Your task to perform on an android device: open the mobile data screen to see how much data has been used Image 0: 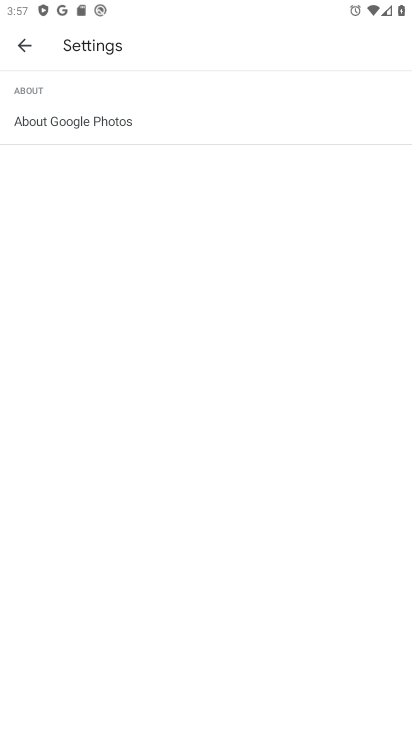
Step 0: press home button
Your task to perform on an android device: open the mobile data screen to see how much data has been used Image 1: 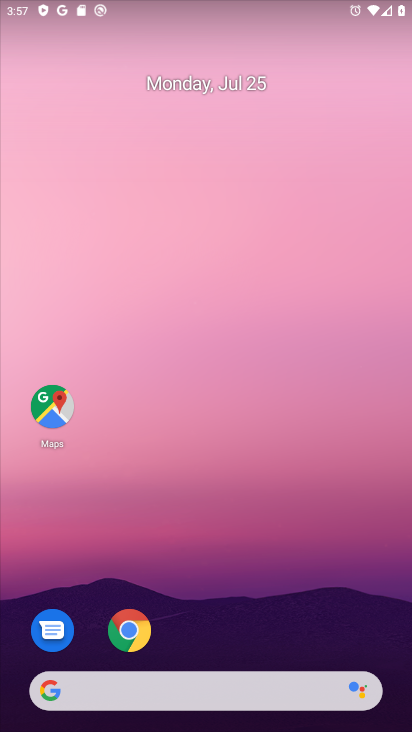
Step 1: drag from (176, 690) to (242, 216)
Your task to perform on an android device: open the mobile data screen to see how much data has been used Image 2: 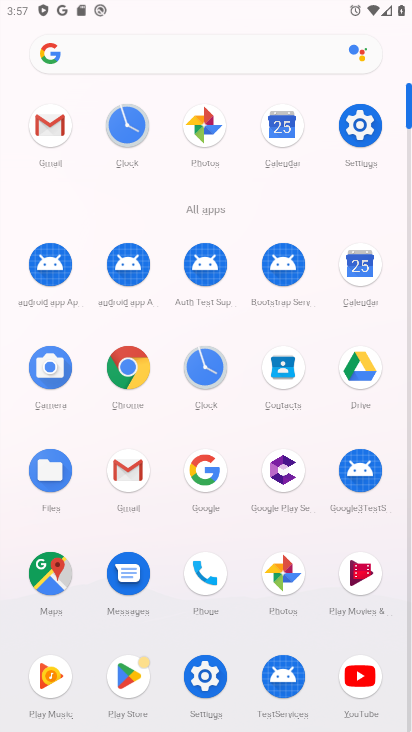
Step 2: click (359, 125)
Your task to perform on an android device: open the mobile data screen to see how much data has been used Image 3: 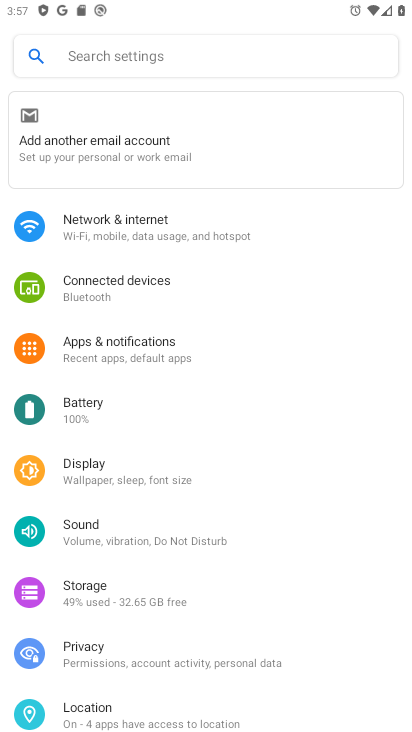
Step 3: click (139, 233)
Your task to perform on an android device: open the mobile data screen to see how much data has been used Image 4: 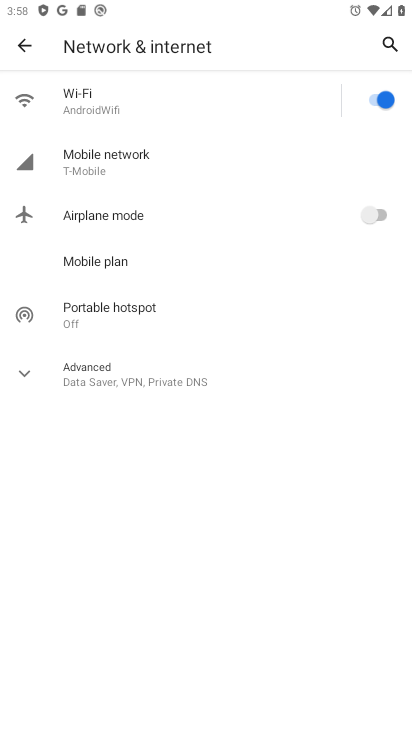
Step 4: click (114, 166)
Your task to perform on an android device: open the mobile data screen to see how much data has been used Image 5: 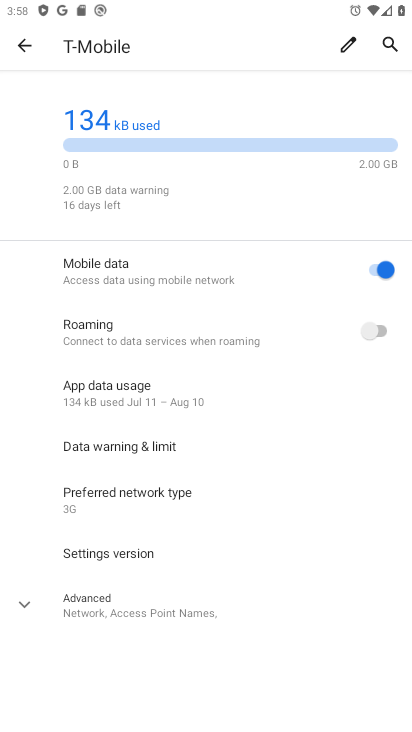
Step 5: task complete